Your task to perform on an android device: When is my next appointment? Image 0: 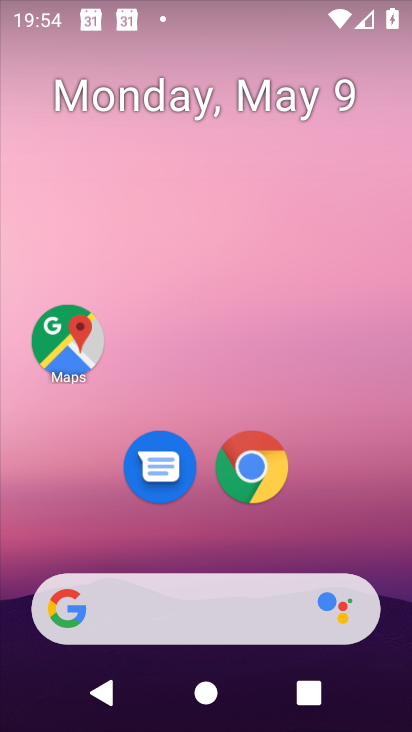
Step 0: drag from (363, 474) to (283, 65)
Your task to perform on an android device: When is my next appointment? Image 1: 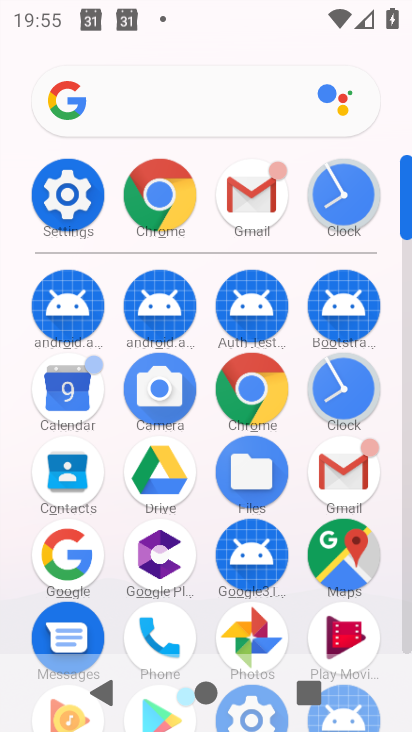
Step 1: click (77, 381)
Your task to perform on an android device: When is my next appointment? Image 2: 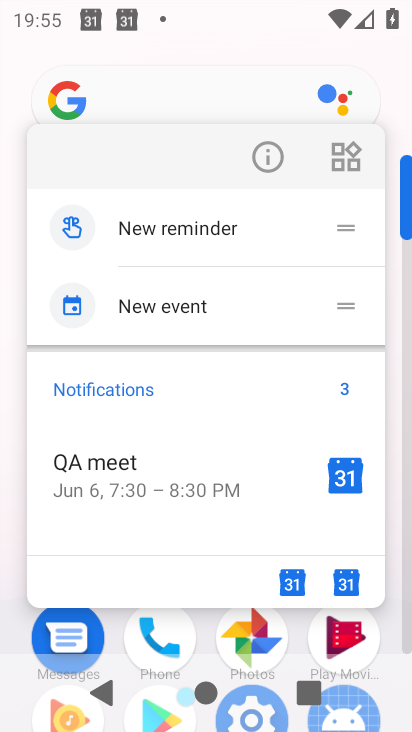
Step 2: click (182, 22)
Your task to perform on an android device: When is my next appointment? Image 3: 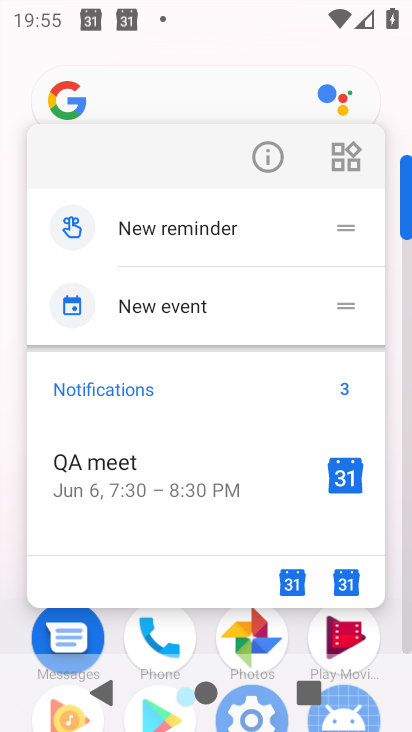
Step 3: click (16, 344)
Your task to perform on an android device: When is my next appointment? Image 4: 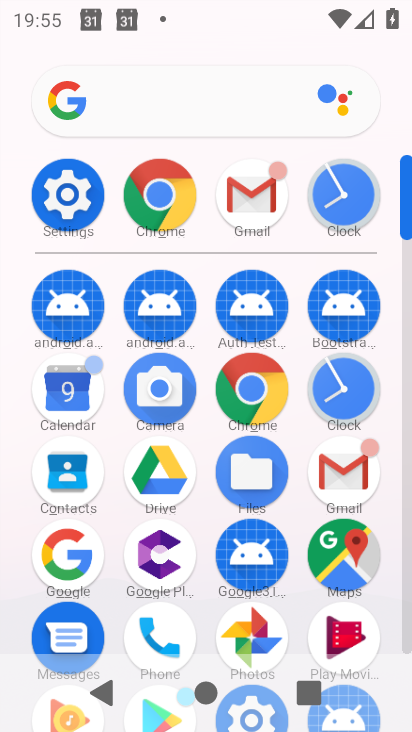
Step 4: click (67, 375)
Your task to perform on an android device: When is my next appointment? Image 5: 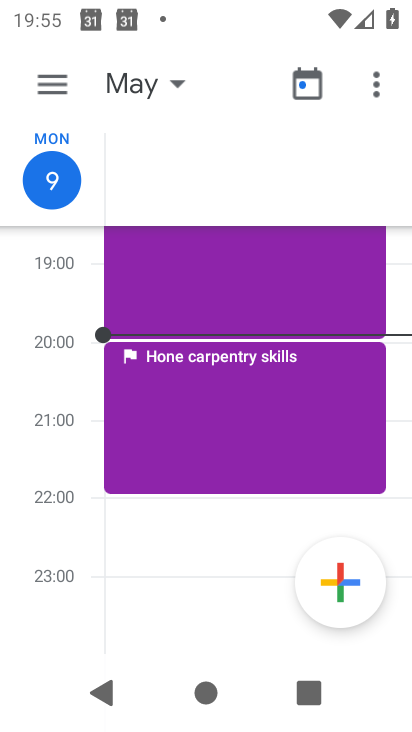
Step 5: task complete